Your task to perform on an android device: change timer sound Image 0: 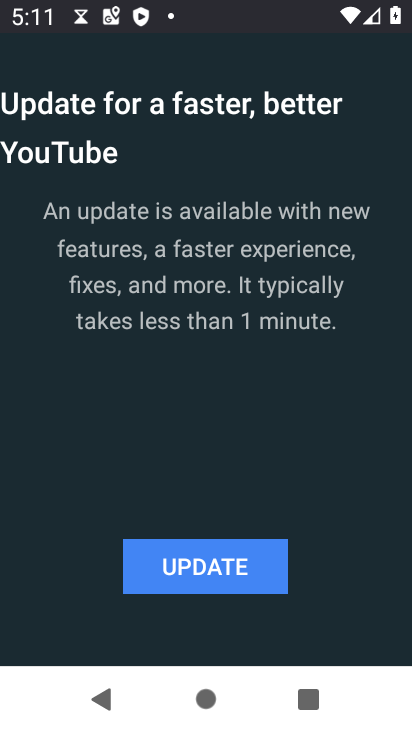
Step 0: click (229, 565)
Your task to perform on an android device: change timer sound Image 1: 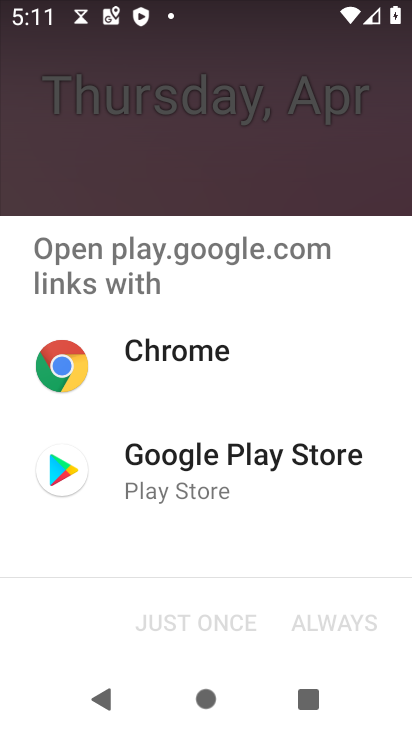
Step 1: press home button
Your task to perform on an android device: change timer sound Image 2: 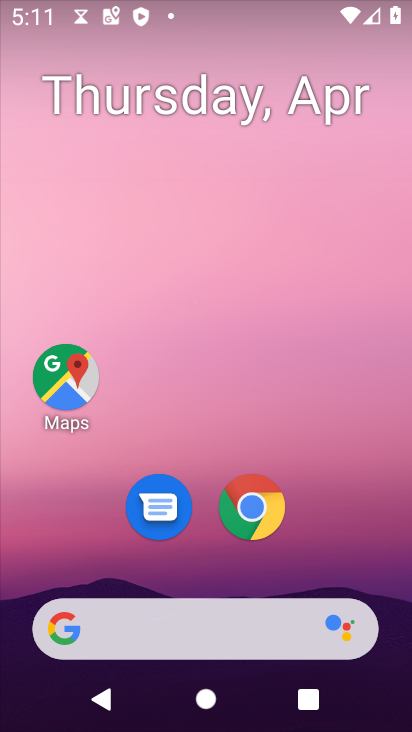
Step 2: drag from (316, 582) to (303, 137)
Your task to perform on an android device: change timer sound Image 3: 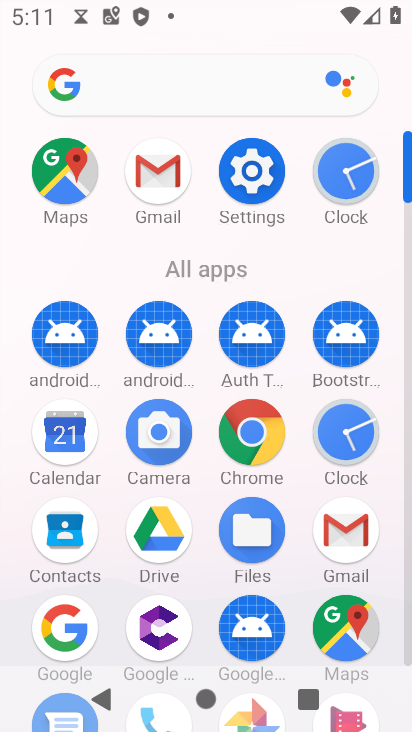
Step 3: click (328, 438)
Your task to perform on an android device: change timer sound Image 4: 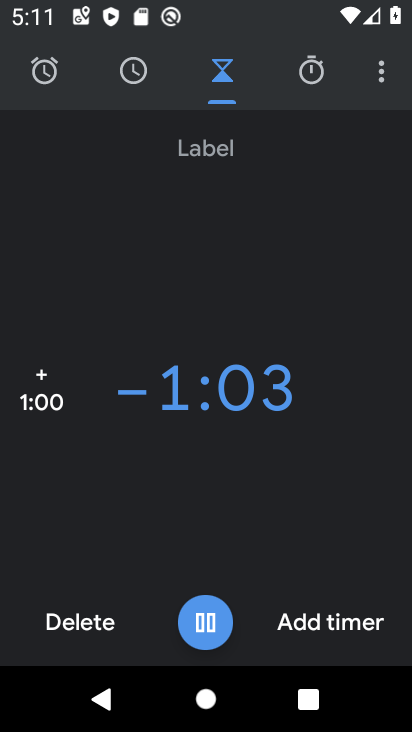
Step 4: click (379, 77)
Your task to perform on an android device: change timer sound Image 5: 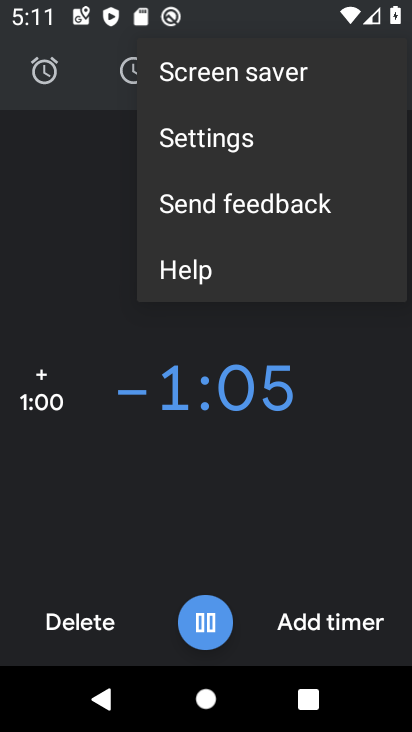
Step 5: click (244, 137)
Your task to perform on an android device: change timer sound Image 6: 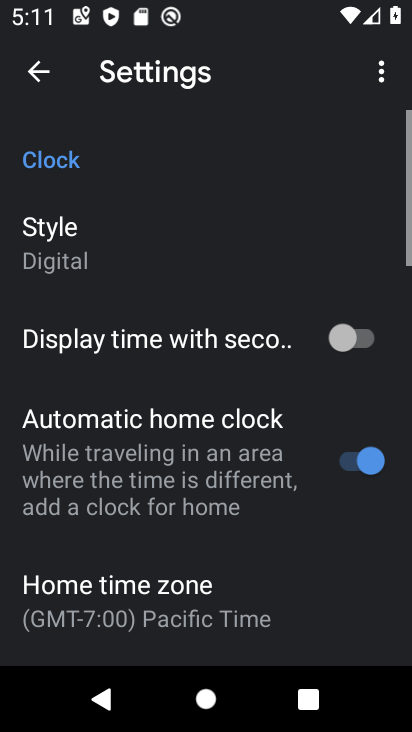
Step 6: drag from (219, 523) to (269, 221)
Your task to perform on an android device: change timer sound Image 7: 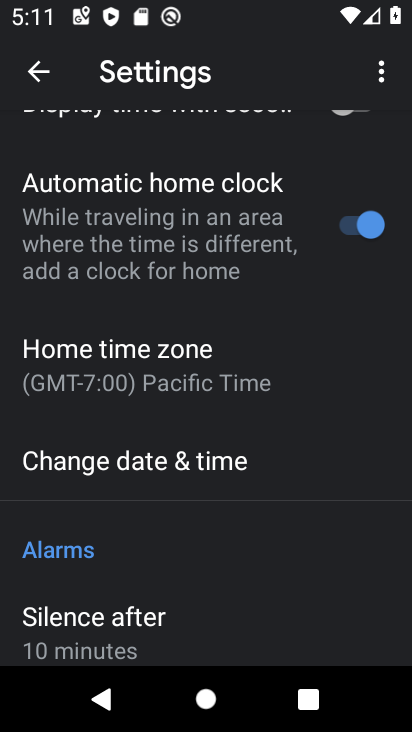
Step 7: drag from (149, 547) to (246, 217)
Your task to perform on an android device: change timer sound Image 8: 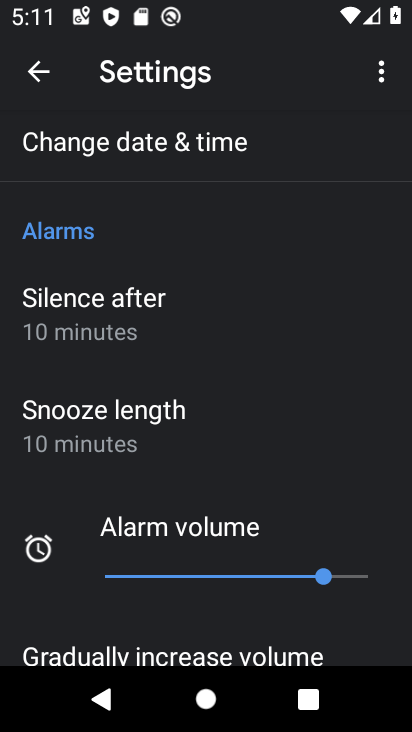
Step 8: drag from (169, 487) to (231, 207)
Your task to perform on an android device: change timer sound Image 9: 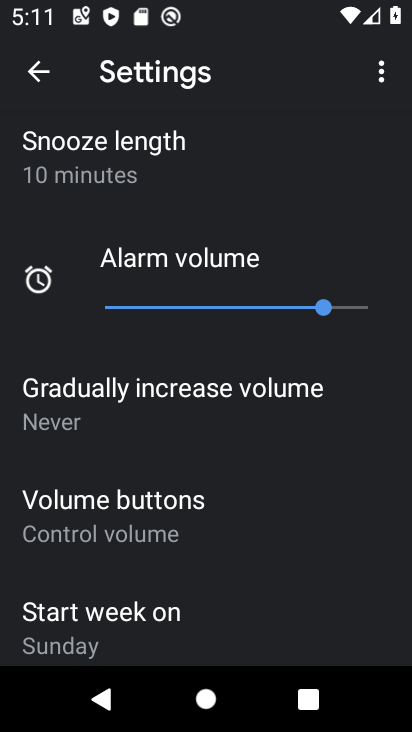
Step 9: drag from (181, 552) to (176, 257)
Your task to perform on an android device: change timer sound Image 10: 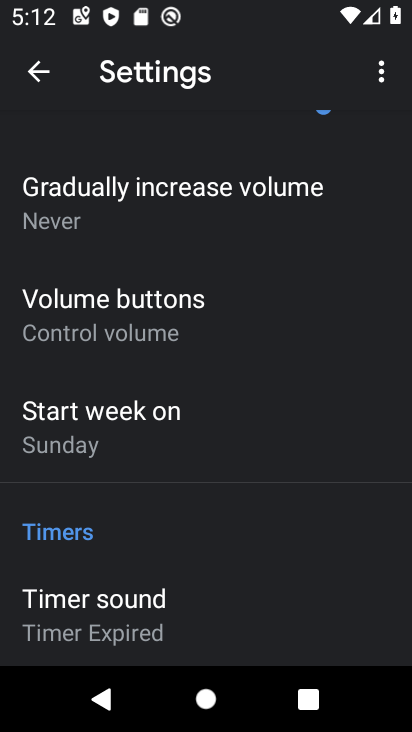
Step 10: drag from (170, 599) to (230, 325)
Your task to perform on an android device: change timer sound Image 11: 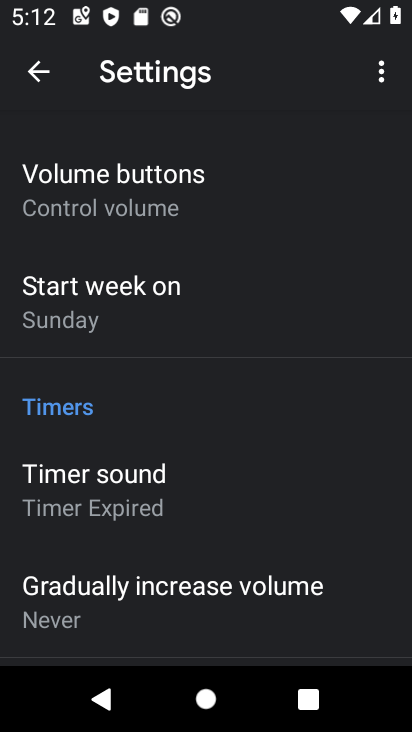
Step 11: click (120, 503)
Your task to perform on an android device: change timer sound Image 12: 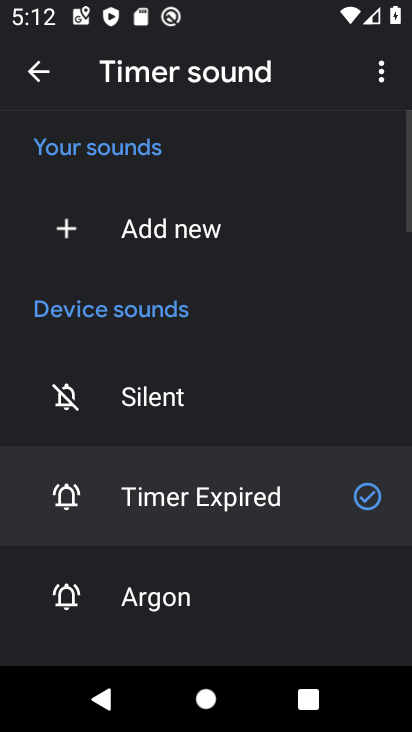
Step 12: click (138, 604)
Your task to perform on an android device: change timer sound Image 13: 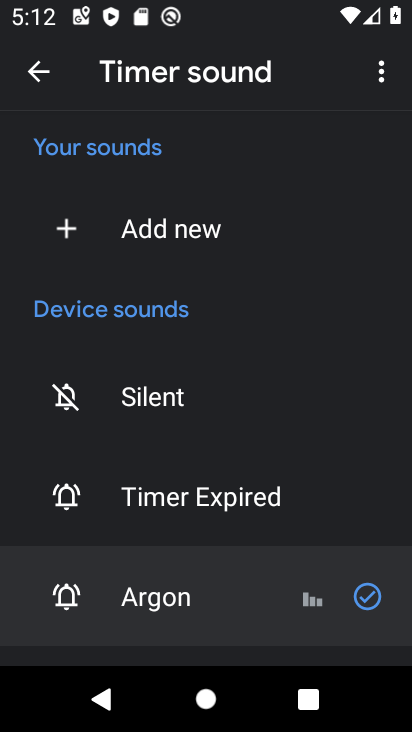
Step 13: task complete